Your task to perform on an android device: open the mobile data screen to see how much data has been used Image 0: 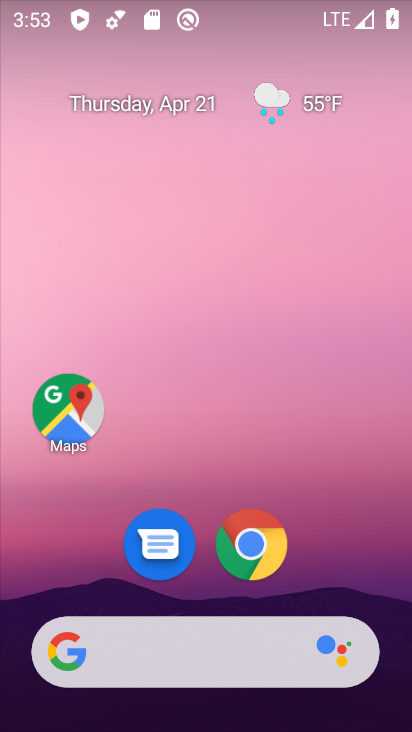
Step 0: drag from (294, 653) to (260, 554)
Your task to perform on an android device: open the mobile data screen to see how much data has been used Image 1: 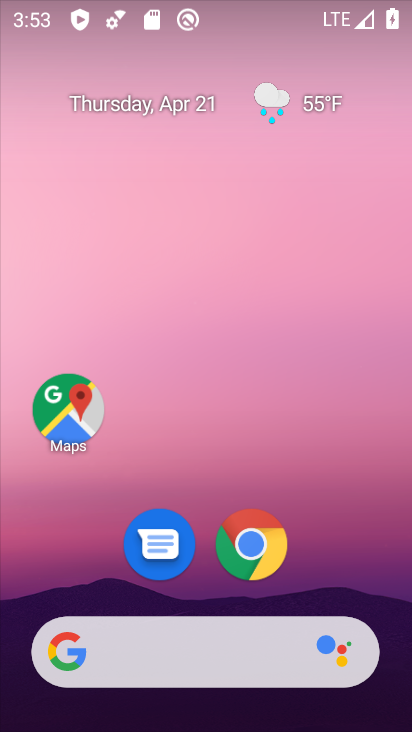
Step 1: drag from (249, 707) to (207, 351)
Your task to perform on an android device: open the mobile data screen to see how much data has been used Image 2: 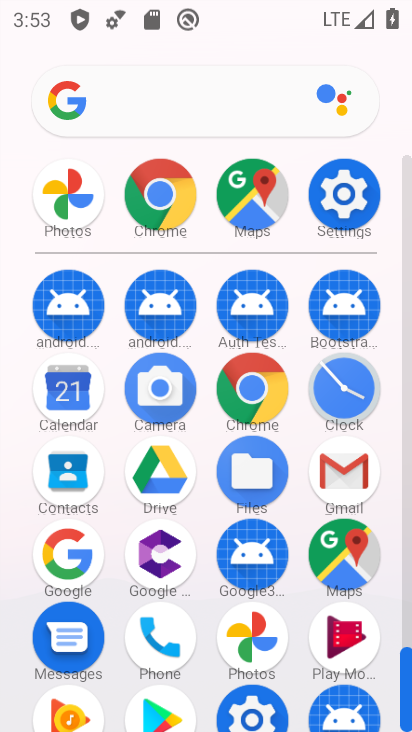
Step 2: click (359, 197)
Your task to perform on an android device: open the mobile data screen to see how much data has been used Image 3: 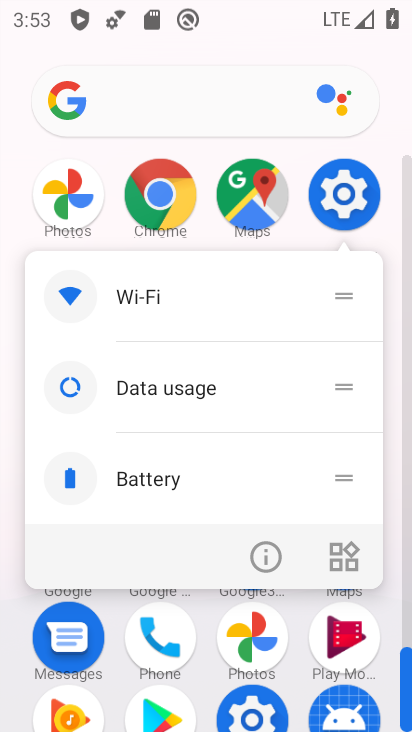
Step 3: click (342, 217)
Your task to perform on an android device: open the mobile data screen to see how much data has been used Image 4: 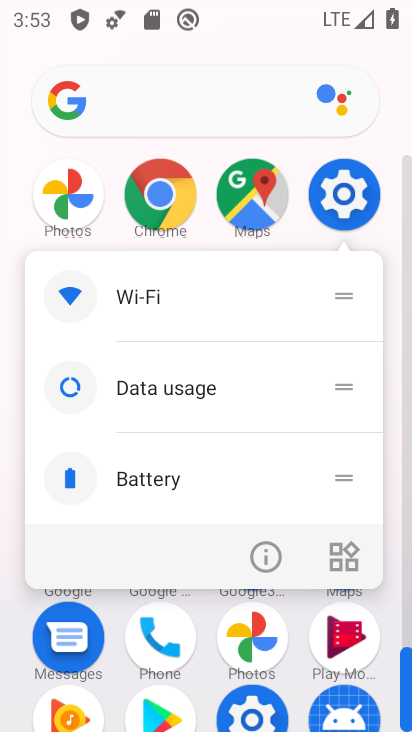
Step 4: click (344, 180)
Your task to perform on an android device: open the mobile data screen to see how much data has been used Image 5: 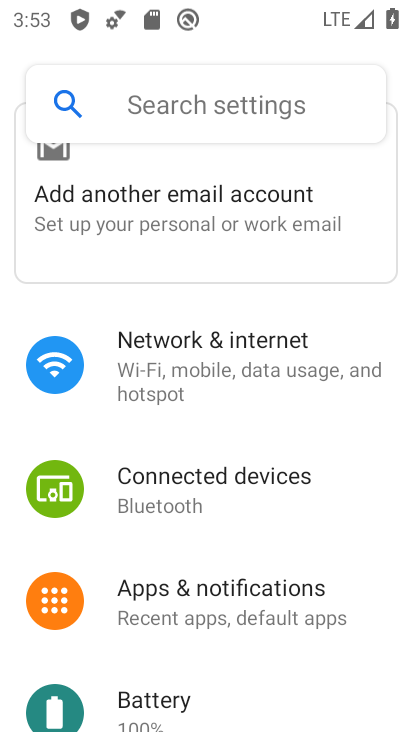
Step 5: click (225, 358)
Your task to perform on an android device: open the mobile data screen to see how much data has been used Image 6: 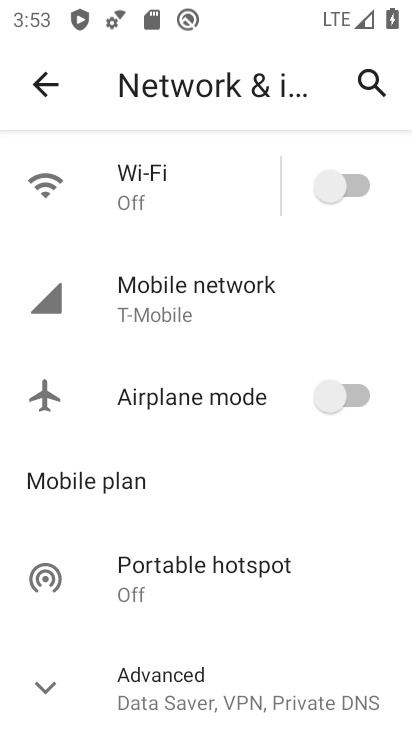
Step 6: click (167, 304)
Your task to perform on an android device: open the mobile data screen to see how much data has been used Image 7: 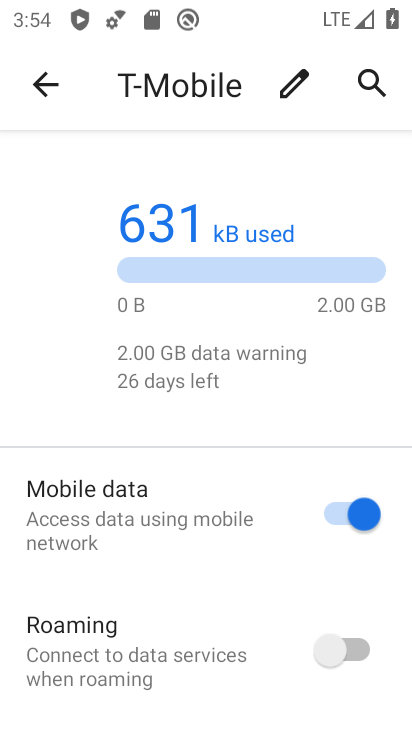
Step 7: task complete